Your task to perform on an android device: turn off location history Image 0: 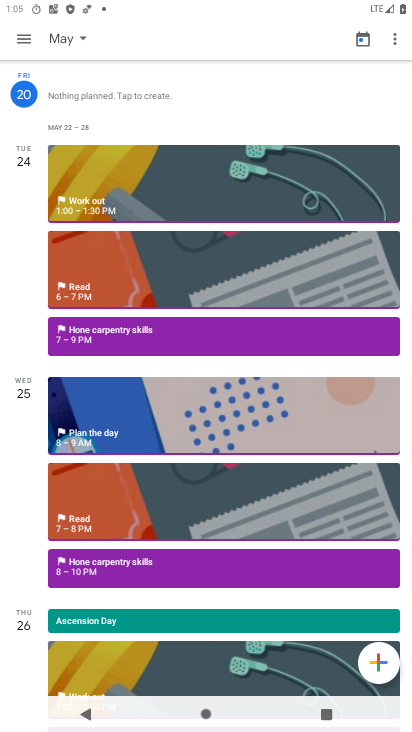
Step 0: press home button
Your task to perform on an android device: turn off location history Image 1: 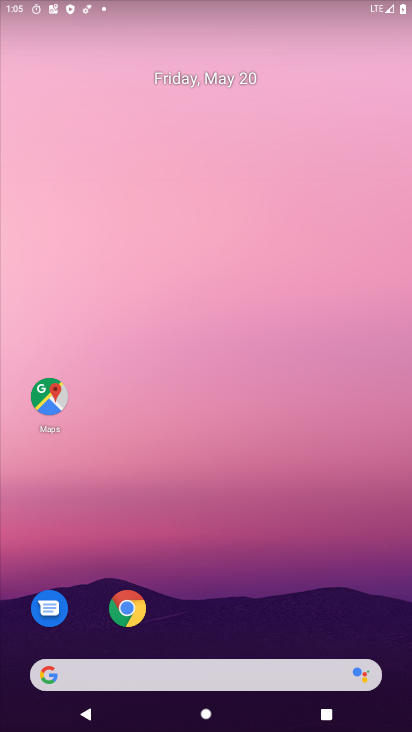
Step 1: drag from (369, 602) to (384, 137)
Your task to perform on an android device: turn off location history Image 2: 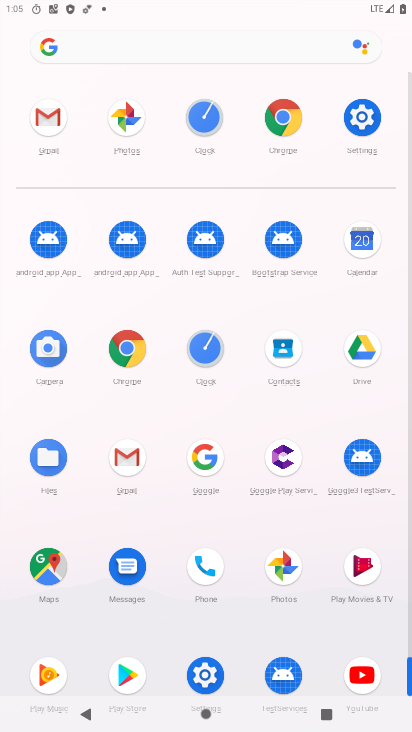
Step 2: click (371, 124)
Your task to perform on an android device: turn off location history Image 3: 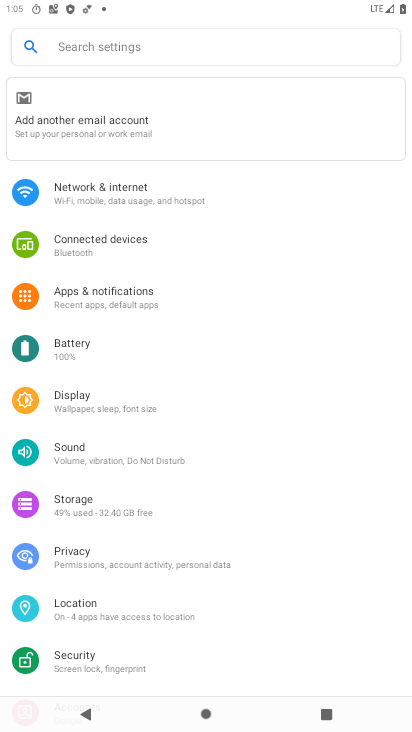
Step 3: click (190, 609)
Your task to perform on an android device: turn off location history Image 4: 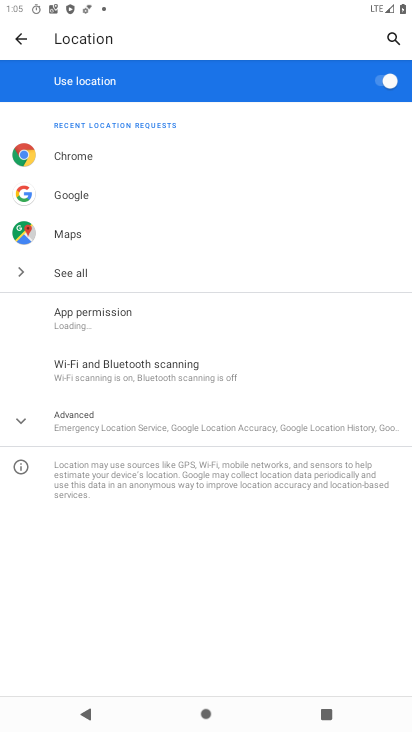
Step 4: click (195, 426)
Your task to perform on an android device: turn off location history Image 5: 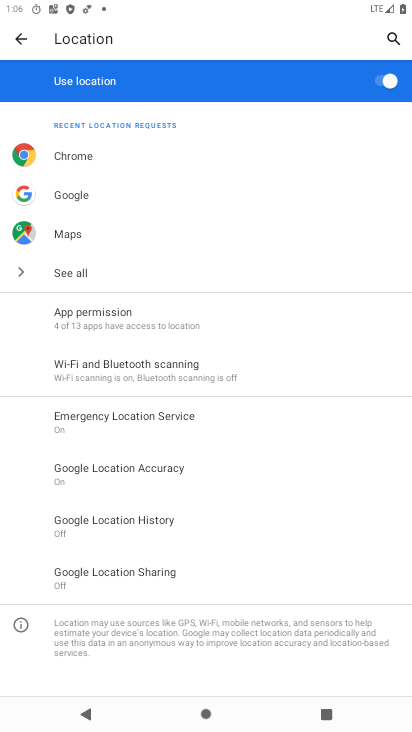
Step 5: click (154, 512)
Your task to perform on an android device: turn off location history Image 6: 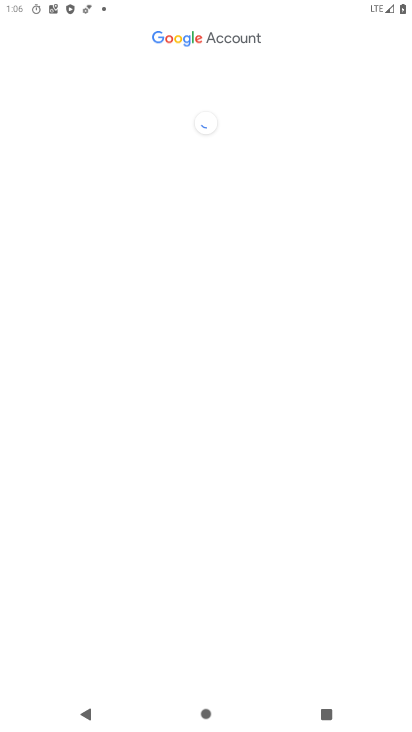
Step 6: task complete